Your task to perform on an android device: Go to privacy settings Image 0: 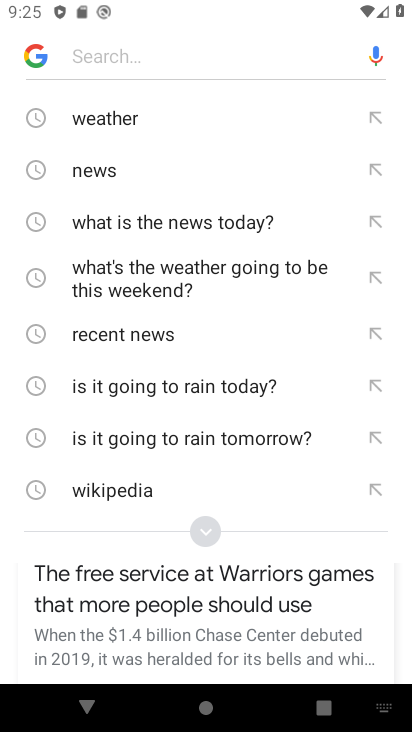
Step 0: press back button
Your task to perform on an android device: Go to privacy settings Image 1: 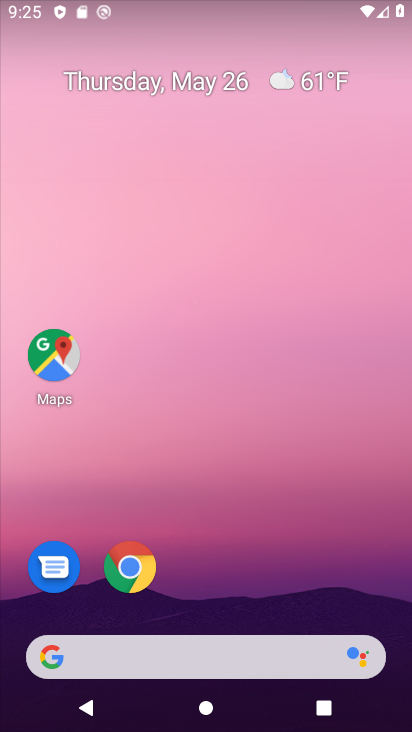
Step 1: drag from (369, 625) to (323, 159)
Your task to perform on an android device: Go to privacy settings Image 2: 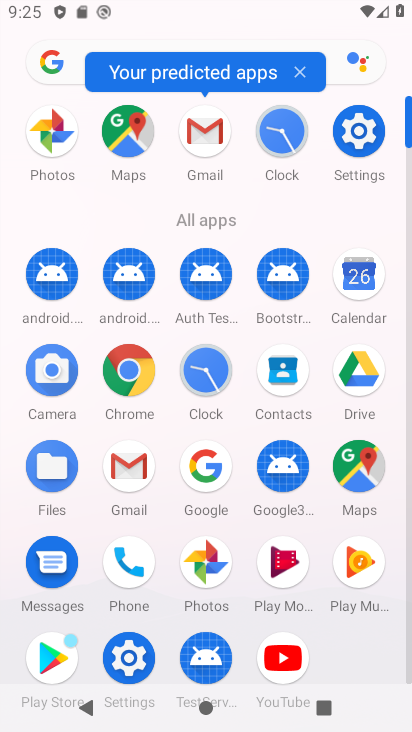
Step 2: click (363, 130)
Your task to perform on an android device: Go to privacy settings Image 3: 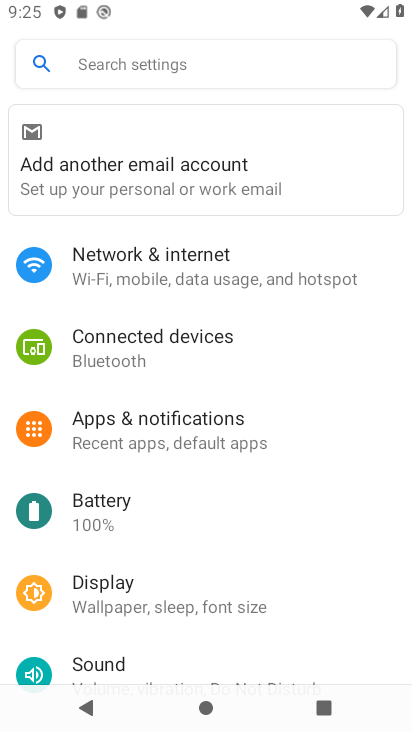
Step 3: drag from (266, 585) to (251, 225)
Your task to perform on an android device: Go to privacy settings Image 4: 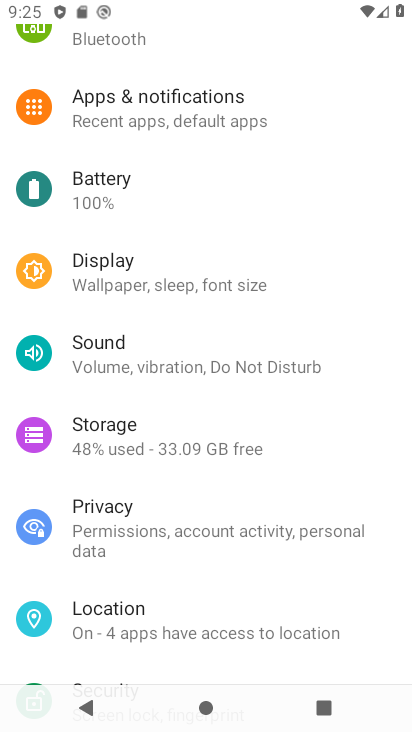
Step 4: click (160, 528)
Your task to perform on an android device: Go to privacy settings Image 5: 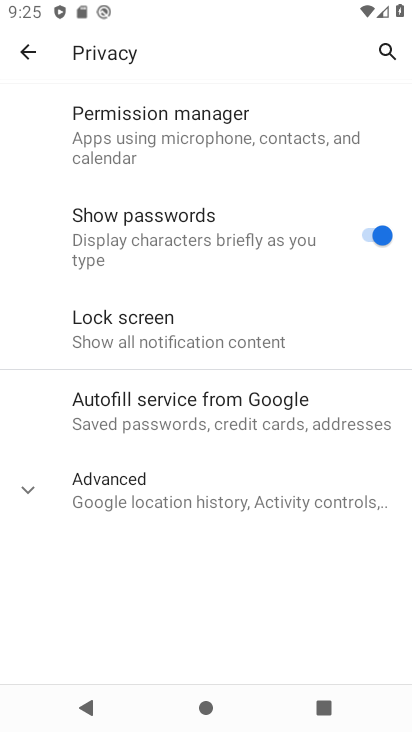
Step 5: task complete